Your task to perform on an android device: change the upload size in google photos Image 0: 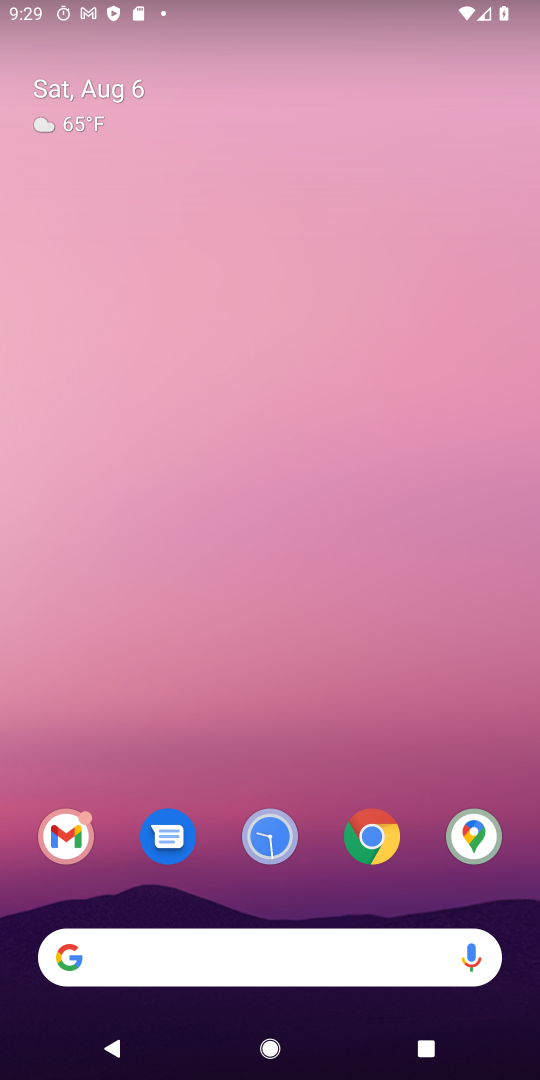
Step 0: drag from (353, 899) to (179, 148)
Your task to perform on an android device: change the upload size in google photos Image 1: 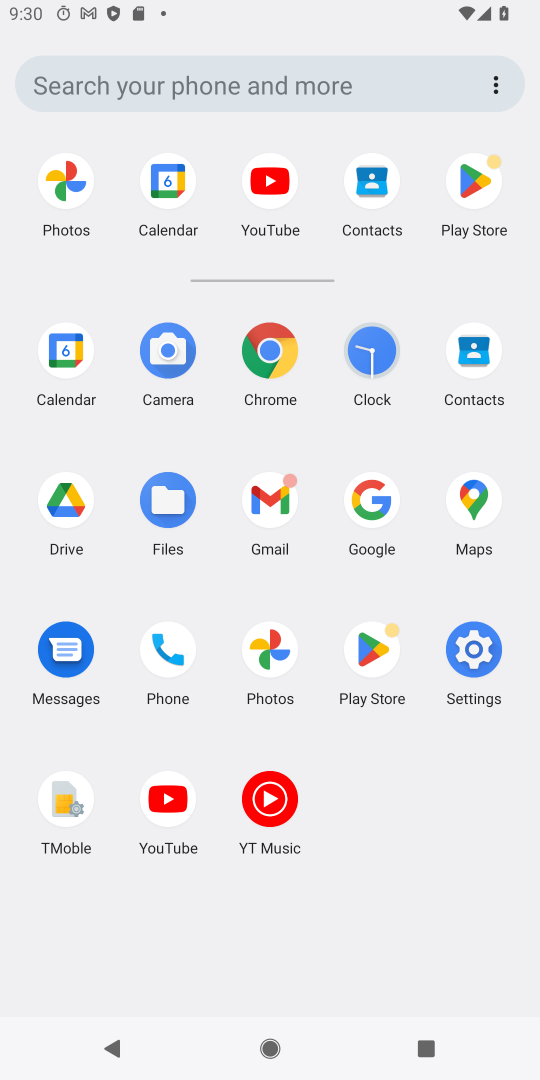
Step 1: click (258, 657)
Your task to perform on an android device: change the upload size in google photos Image 2: 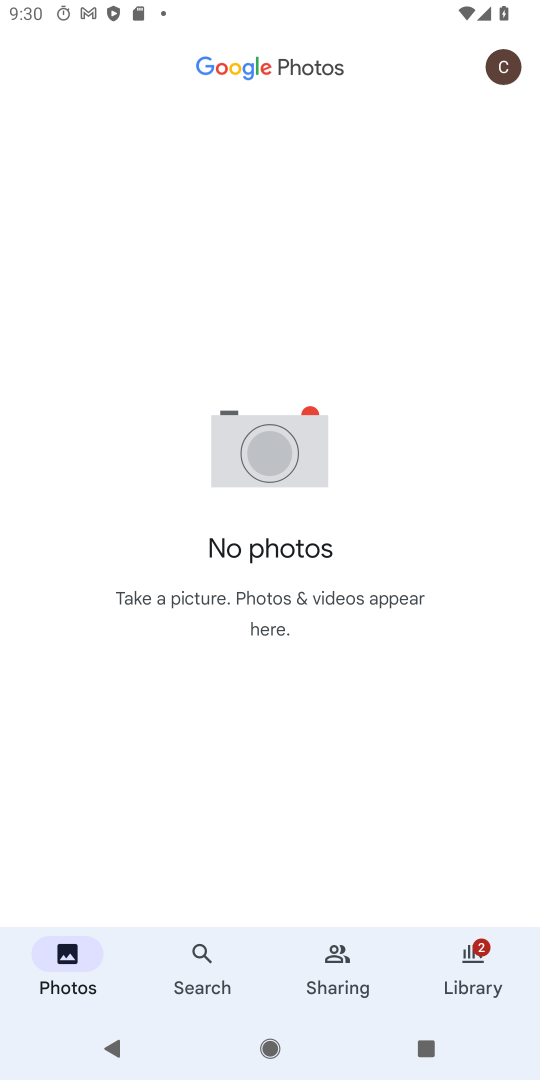
Step 2: click (505, 54)
Your task to perform on an android device: change the upload size in google photos Image 3: 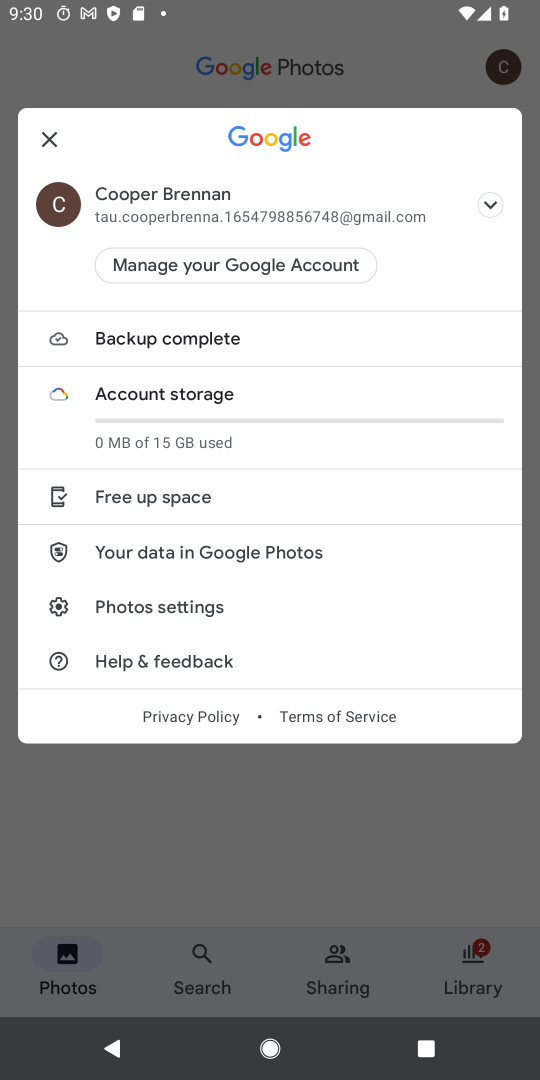
Step 3: click (200, 612)
Your task to perform on an android device: change the upload size in google photos Image 4: 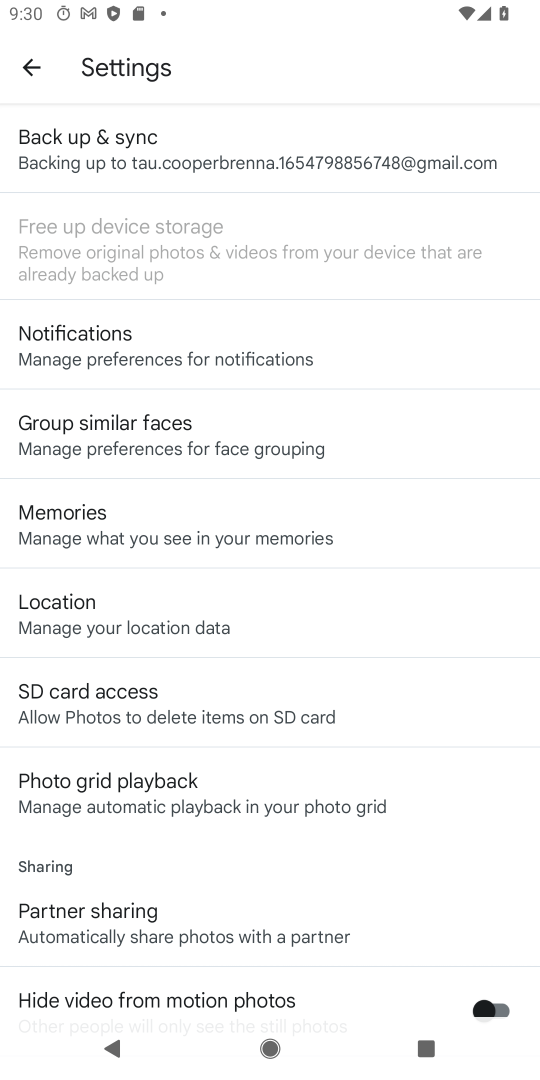
Step 4: click (166, 154)
Your task to perform on an android device: change the upload size in google photos Image 5: 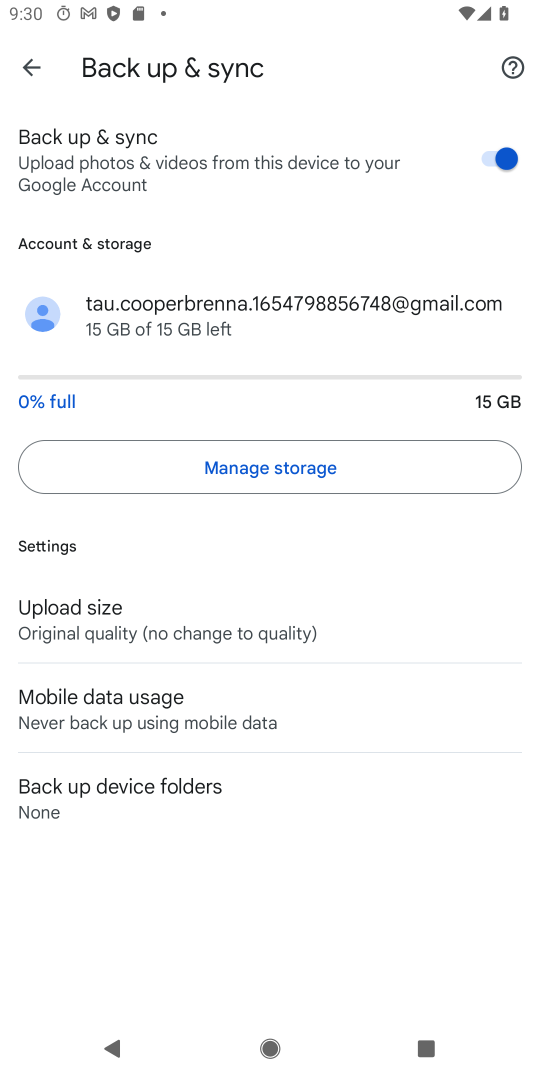
Step 5: click (88, 622)
Your task to perform on an android device: change the upload size in google photos Image 6: 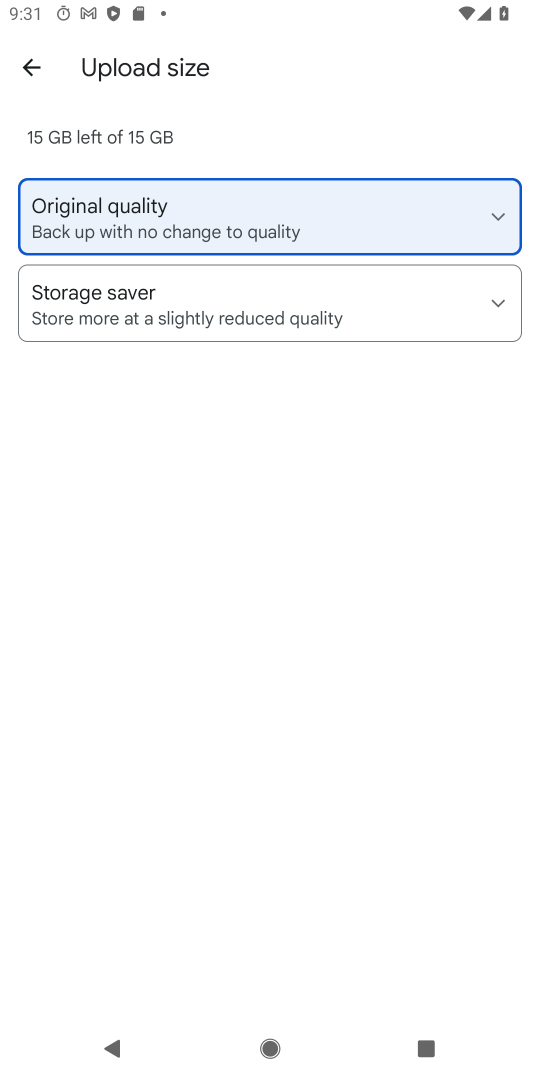
Step 6: click (206, 314)
Your task to perform on an android device: change the upload size in google photos Image 7: 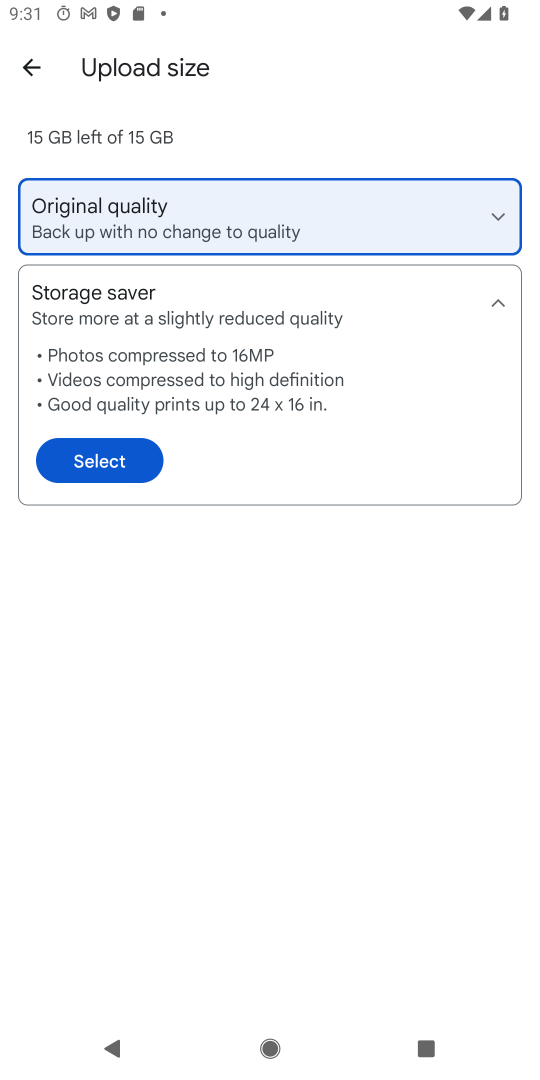
Step 7: click (103, 470)
Your task to perform on an android device: change the upload size in google photos Image 8: 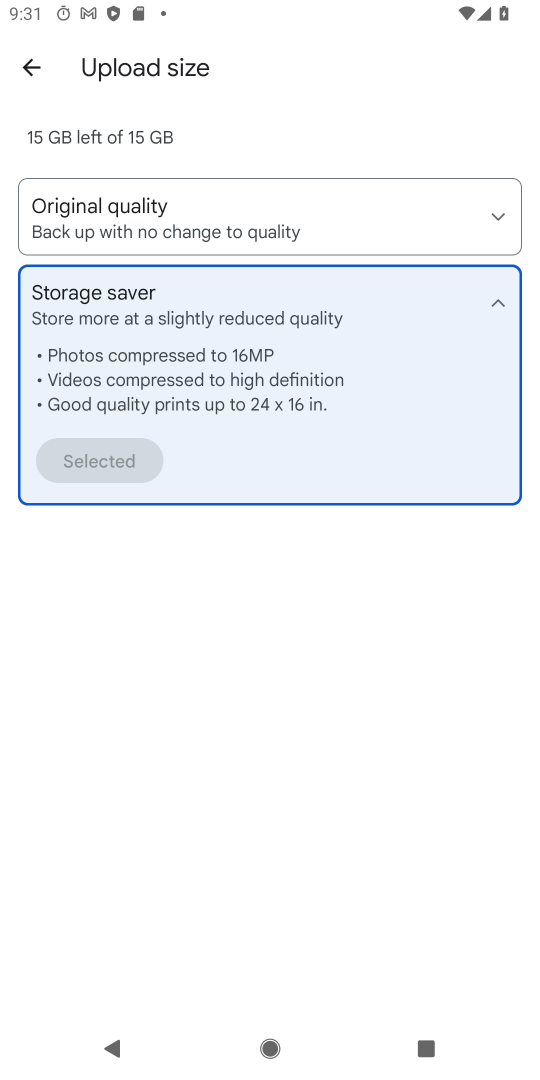
Step 8: task complete